Your task to perform on an android device: turn off location Image 0: 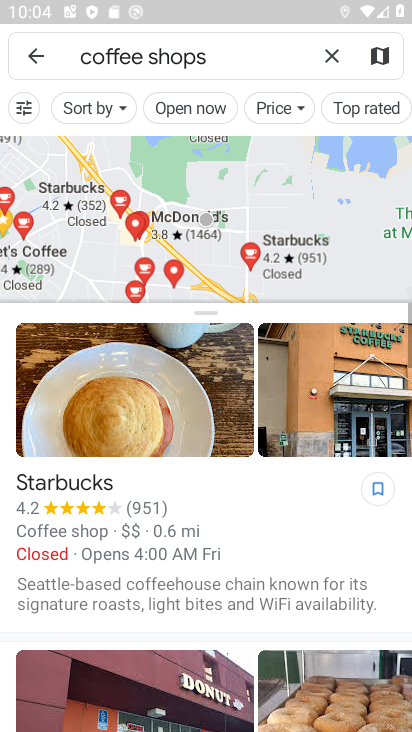
Step 0: drag from (329, 674) to (375, 300)
Your task to perform on an android device: turn off location Image 1: 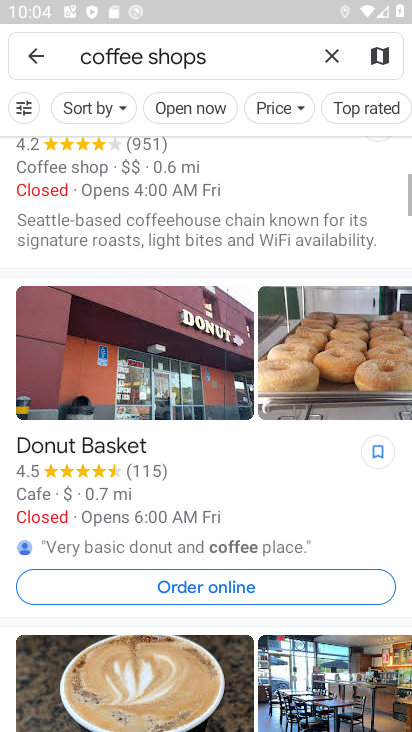
Step 1: press home button
Your task to perform on an android device: turn off location Image 2: 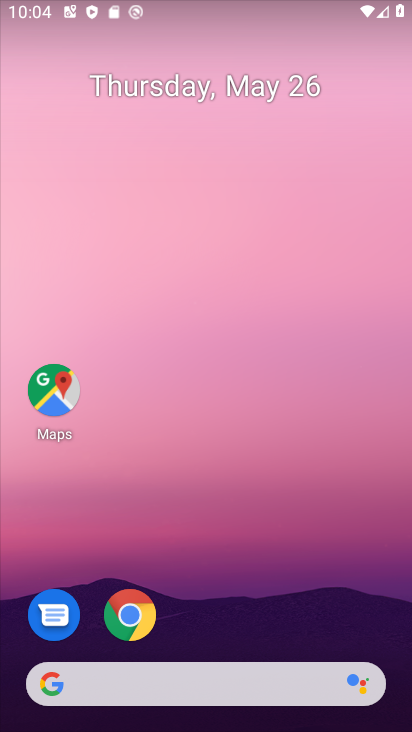
Step 2: drag from (211, 680) to (299, 31)
Your task to perform on an android device: turn off location Image 3: 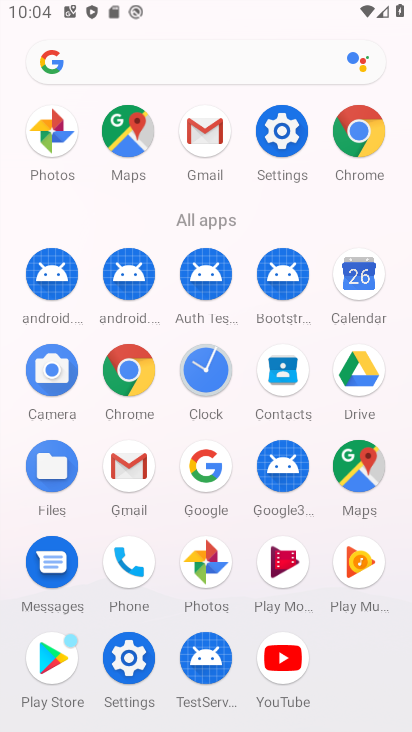
Step 3: click (278, 136)
Your task to perform on an android device: turn off location Image 4: 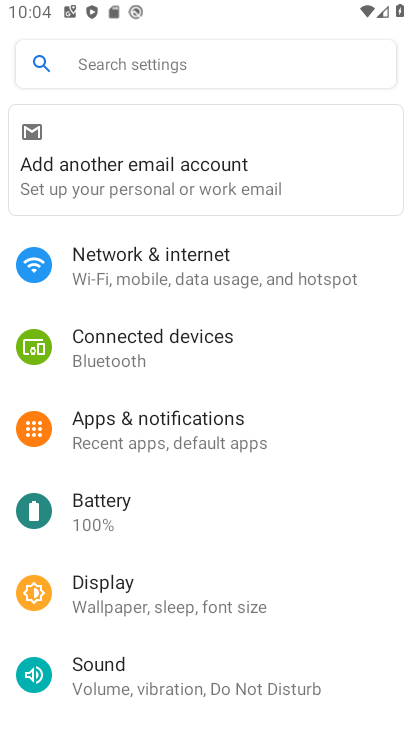
Step 4: drag from (322, 672) to (372, 202)
Your task to perform on an android device: turn off location Image 5: 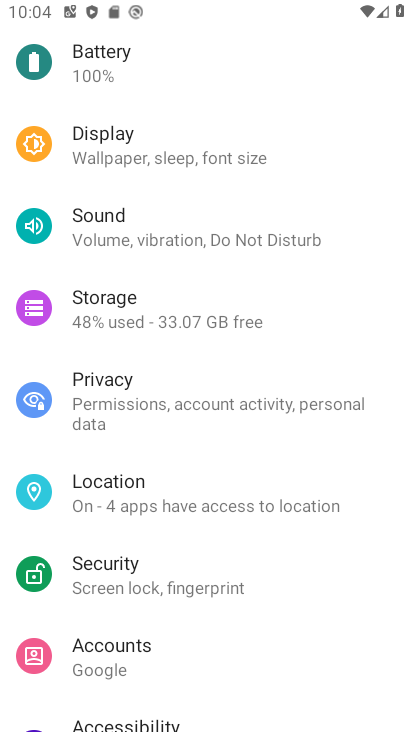
Step 5: click (332, 493)
Your task to perform on an android device: turn off location Image 6: 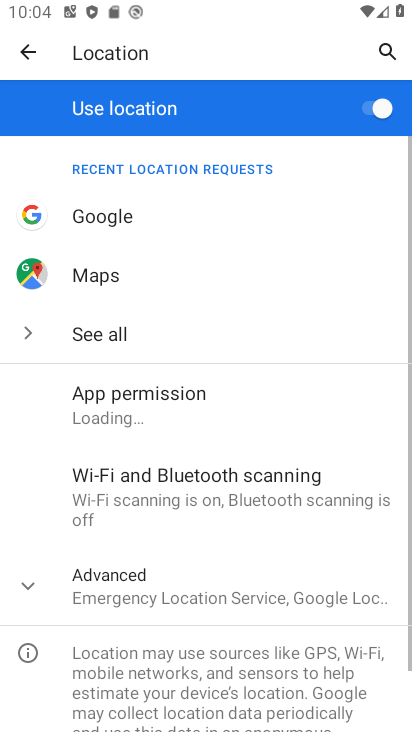
Step 6: click (366, 109)
Your task to perform on an android device: turn off location Image 7: 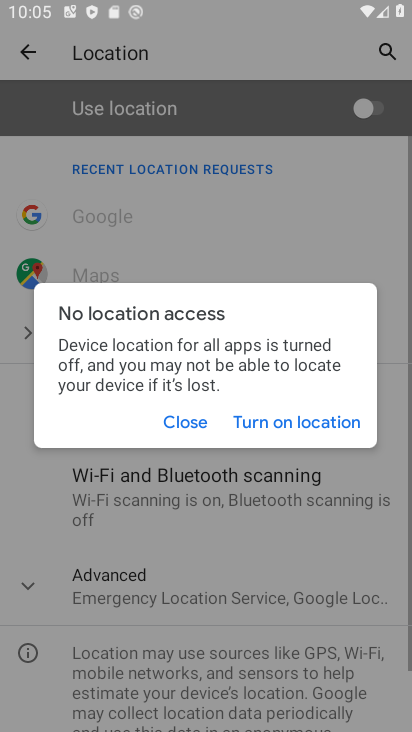
Step 7: task complete